Your task to perform on an android device: open app "Reddit" (install if not already installed) Image 0: 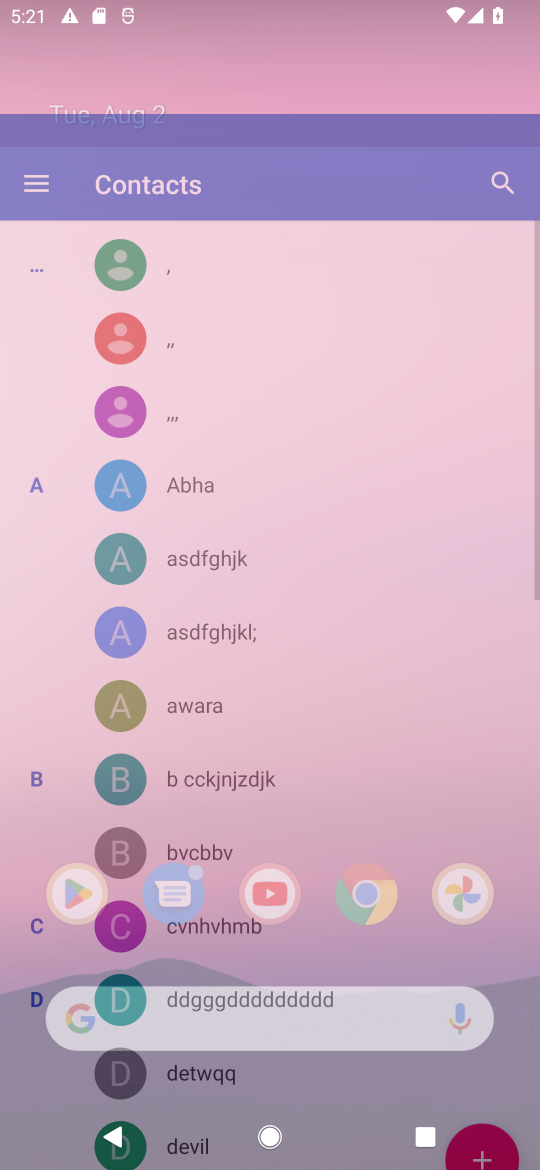
Step 0: press home button
Your task to perform on an android device: open app "Reddit" (install if not already installed) Image 1: 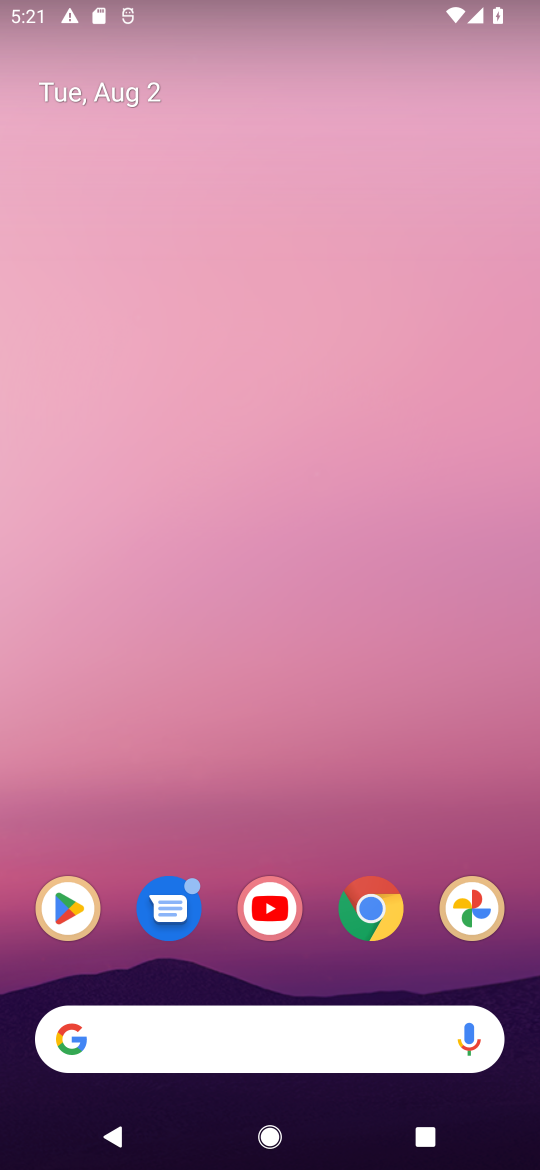
Step 1: click (66, 905)
Your task to perform on an android device: open app "Reddit" (install if not already installed) Image 2: 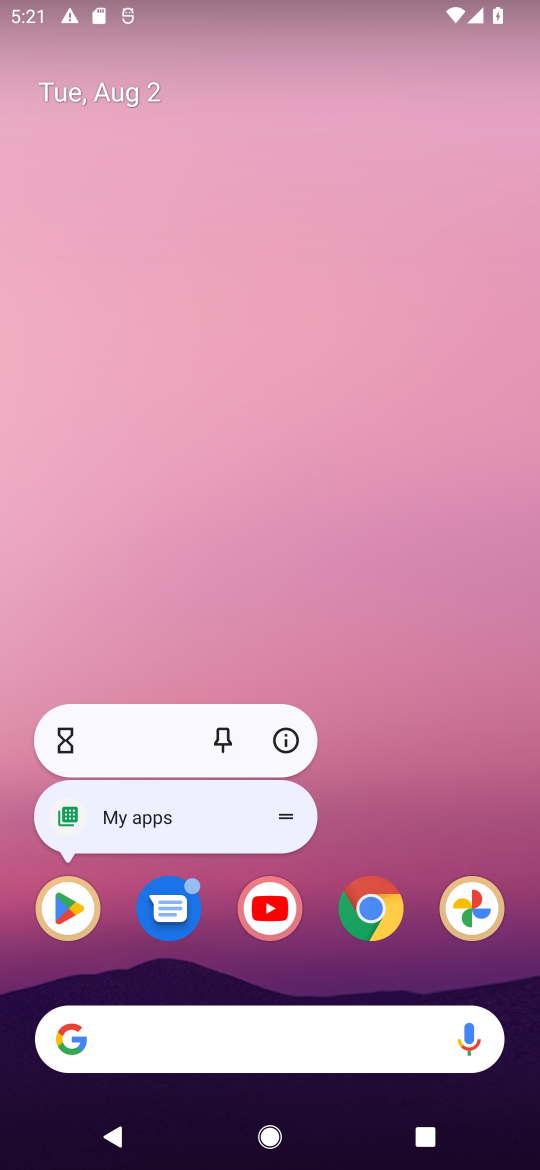
Step 2: click (52, 914)
Your task to perform on an android device: open app "Reddit" (install if not already installed) Image 3: 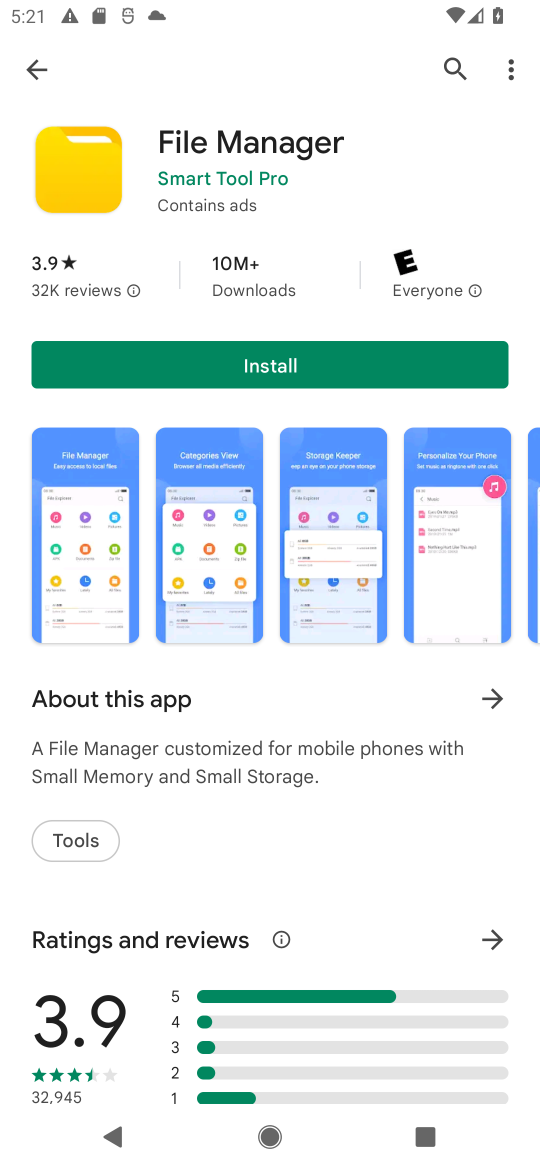
Step 3: click (423, 57)
Your task to perform on an android device: open app "Reddit" (install if not already installed) Image 4: 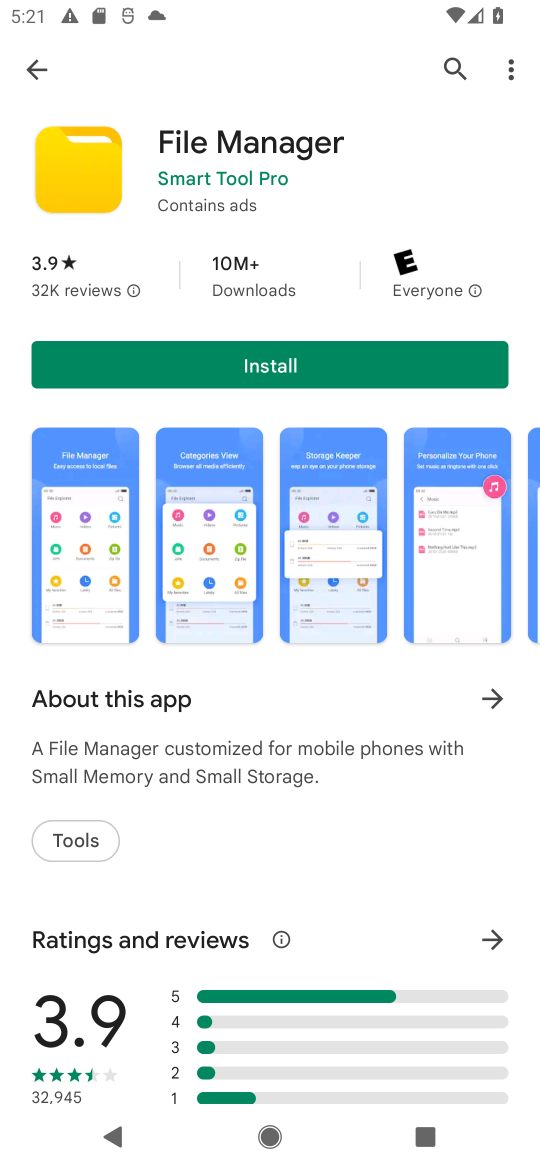
Step 4: click (459, 65)
Your task to perform on an android device: open app "Reddit" (install if not already installed) Image 5: 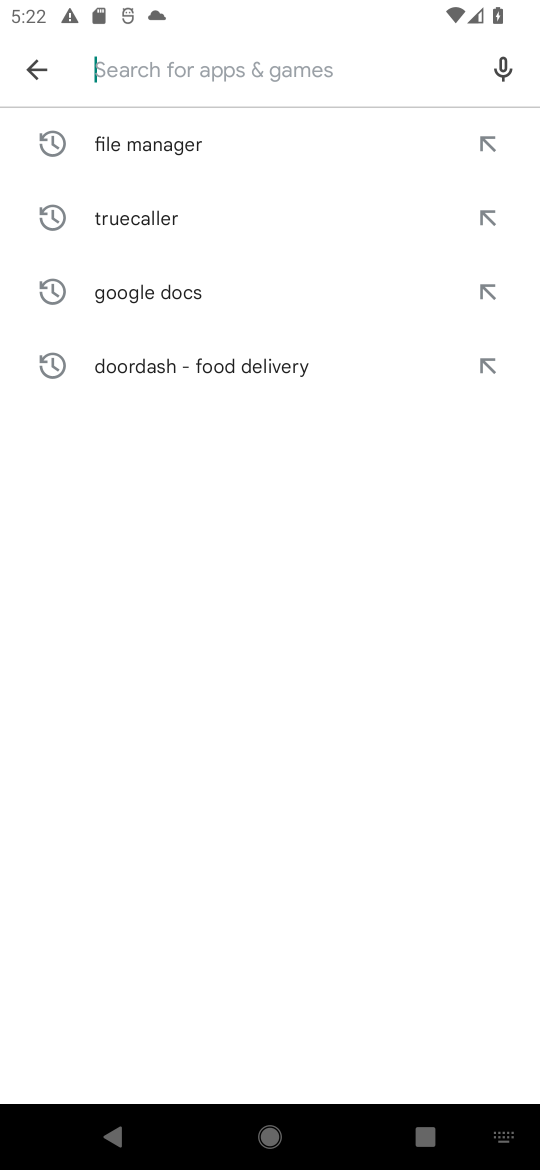
Step 5: type "Reddit"
Your task to perform on an android device: open app "Reddit" (install if not already installed) Image 6: 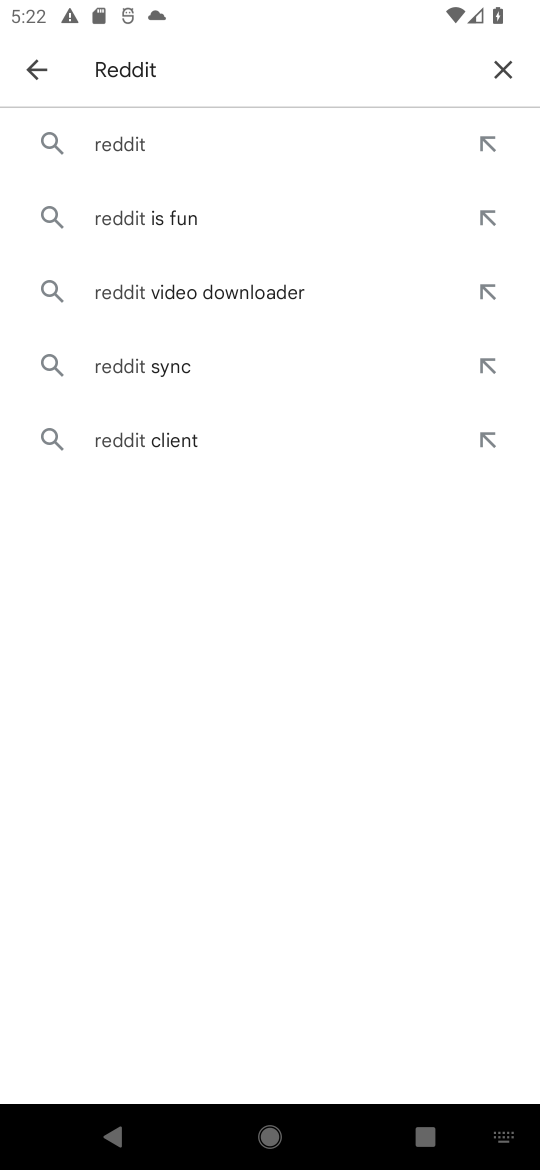
Step 6: click (142, 142)
Your task to perform on an android device: open app "Reddit" (install if not already installed) Image 7: 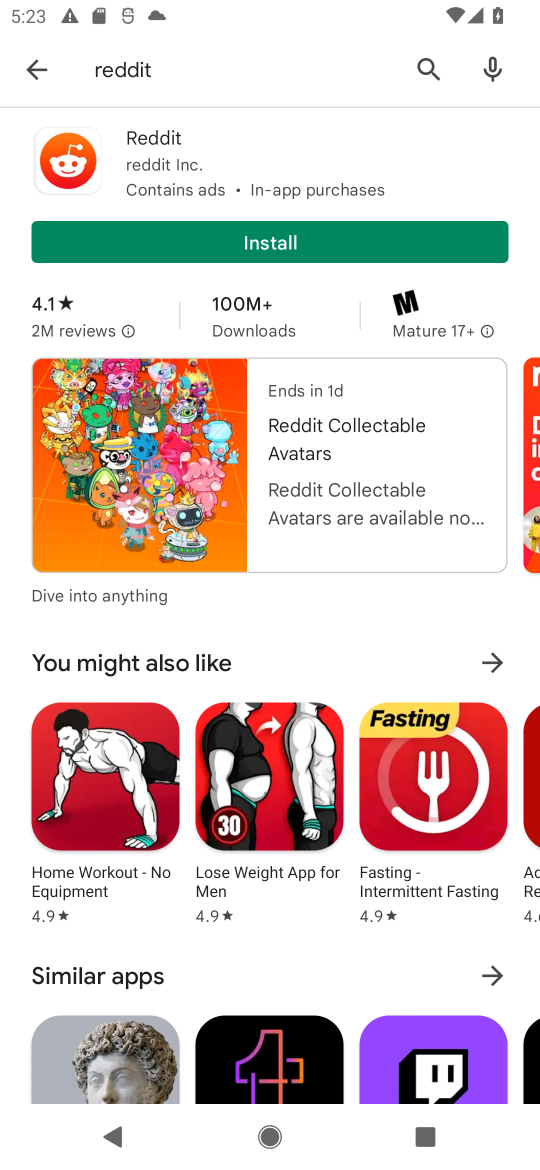
Step 7: click (276, 242)
Your task to perform on an android device: open app "Reddit" (install if not already installed) Image 8: 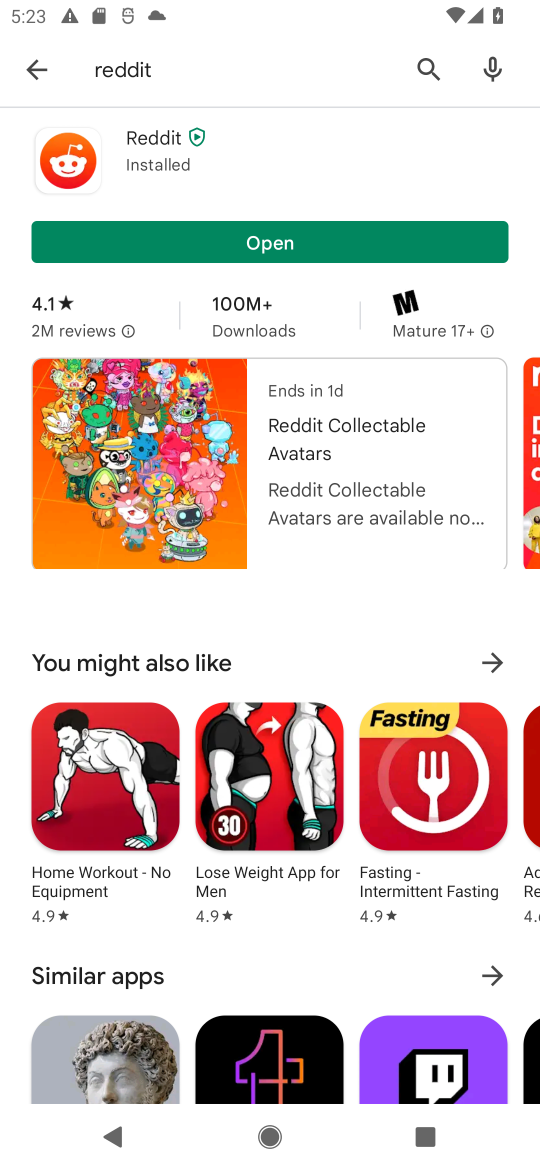
Step 8: click (266, 239)
Your task to perform on an android device: open app "Reddit" (install if not already installed) Image 9: 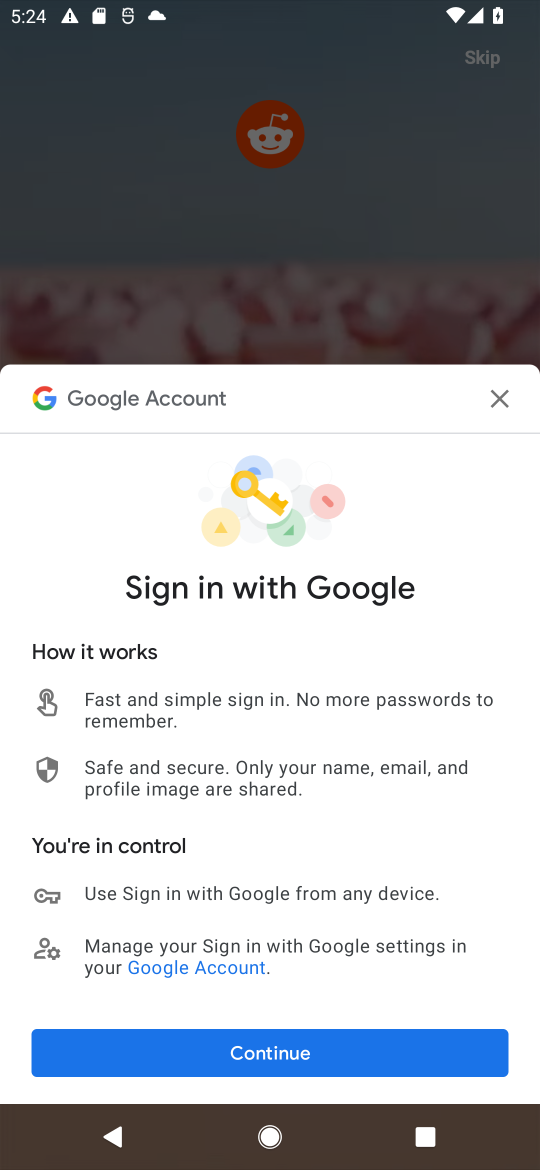
Step 9: click (269, 1053)
Your task to perform on an android device: open app "Reddit" (install if not already installed) Image 10: 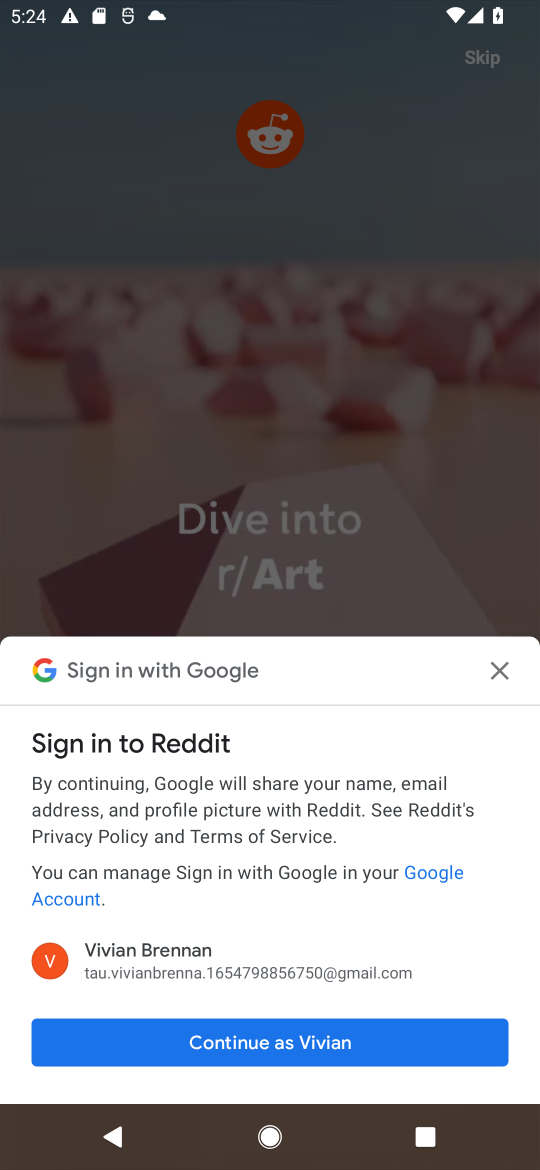
Step 10: click (280, 1036)
Your task to perform on an android device: open app "Reddit" (install if not already installed) Image 11: 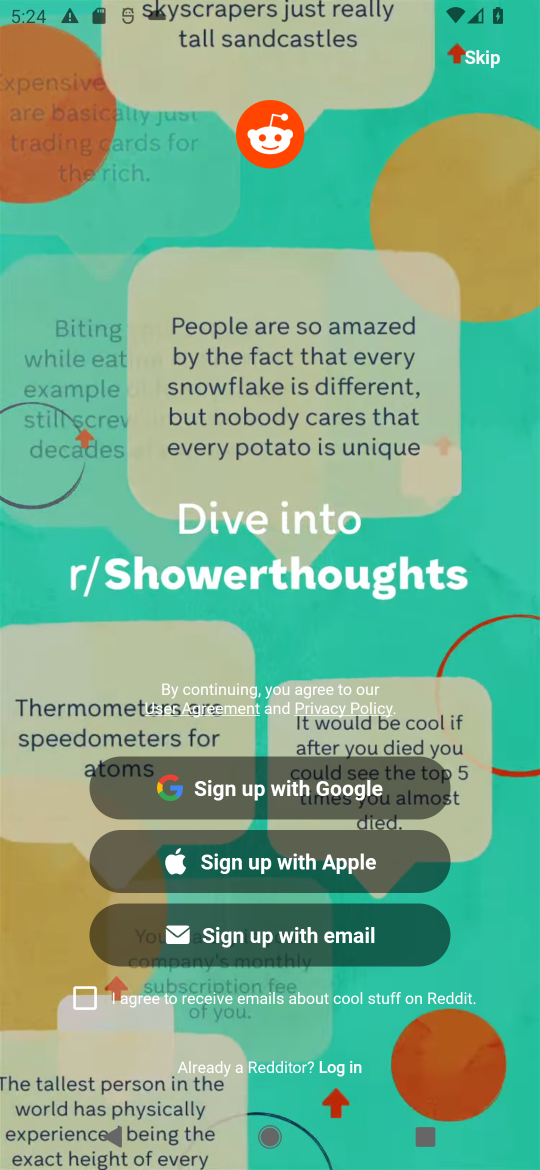
Step 11: click (241, 782)
Your task to perform on an android device: open app "Reddit" (install if not already installed) Image 12: 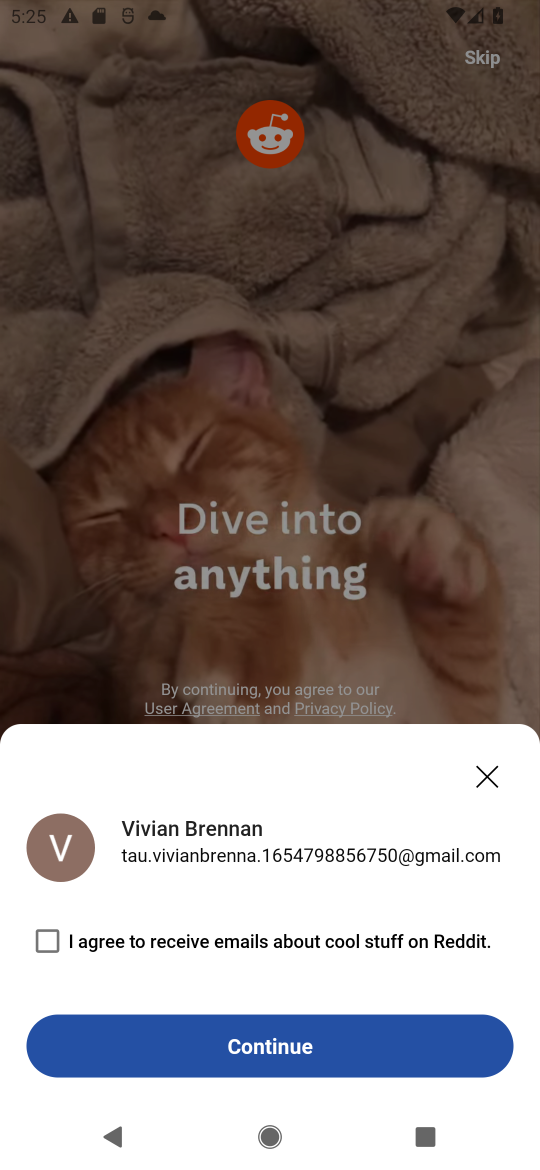
Step 12: click (241, 1062)
Your task to perform on an android device: open app "Reddit" (install if not already installed) Image 13: 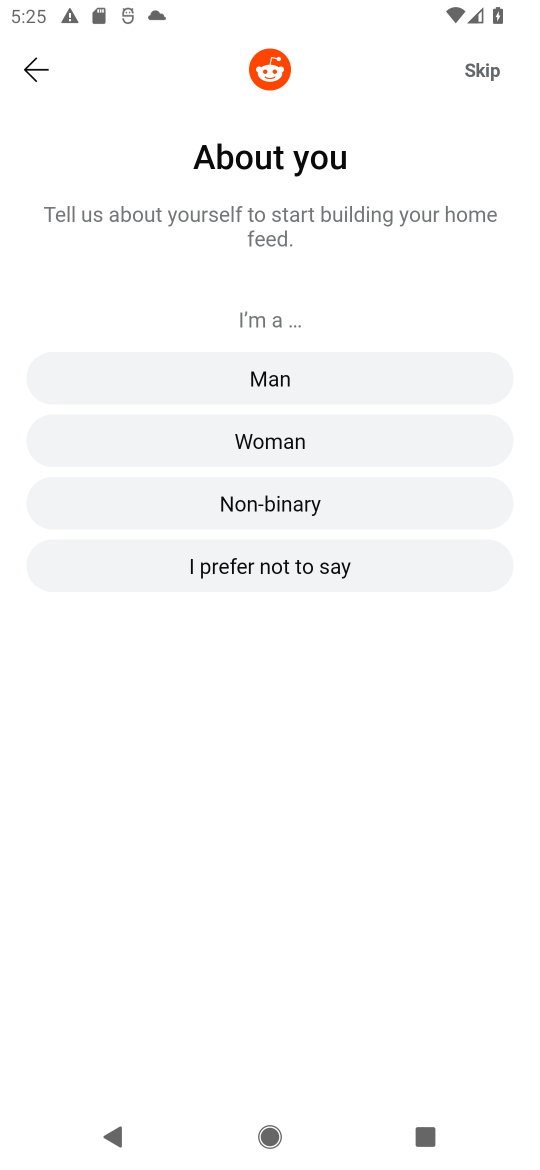
Step 13: click (461, 67)
Your task to perform on an android device: open app "Reddit" (install if not already installed) Image 14: 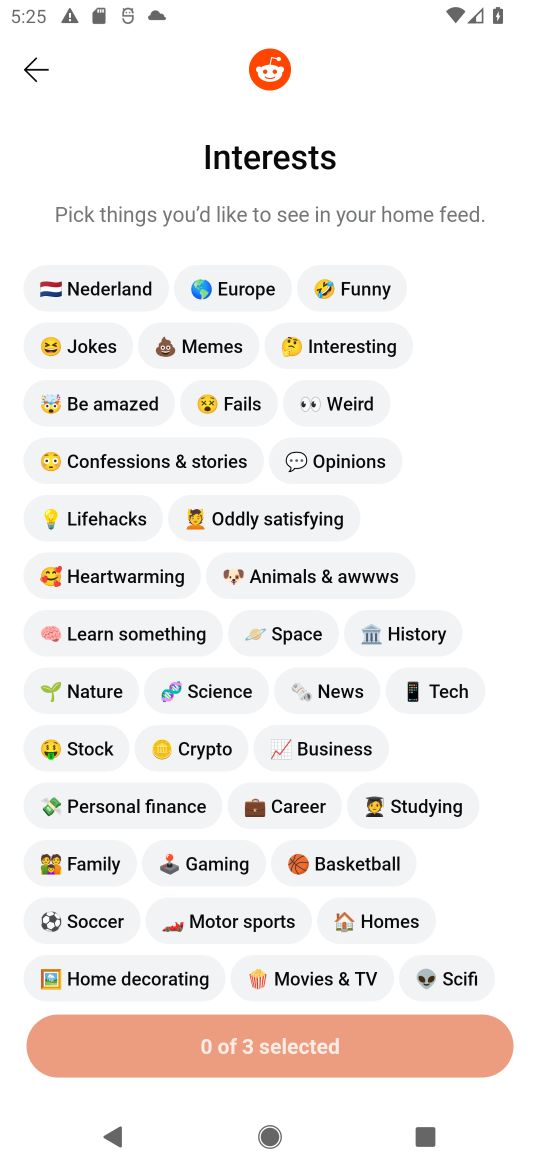
Step 14: task complete